Your task to perform on an android device: Open eBay Image 0: 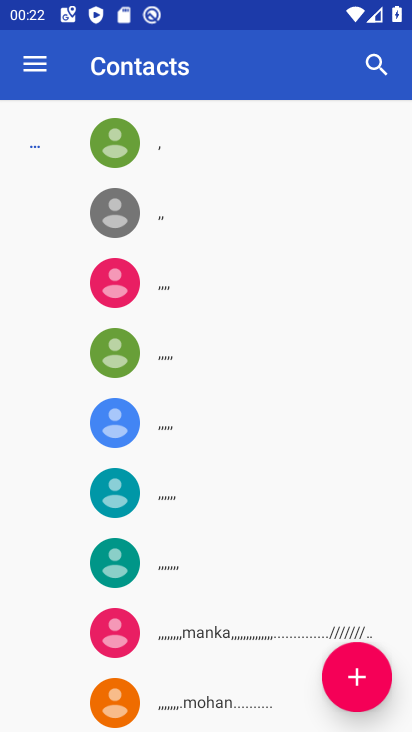
Step 0: press home button
Your task to perform on an android device: Open eBay Image 1: 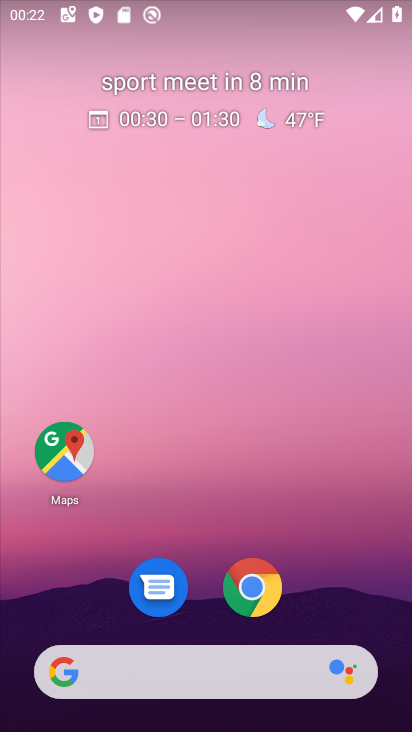
Step 1: click (255, 583)
Your task to perform on an android device: Open eBay Image 2: 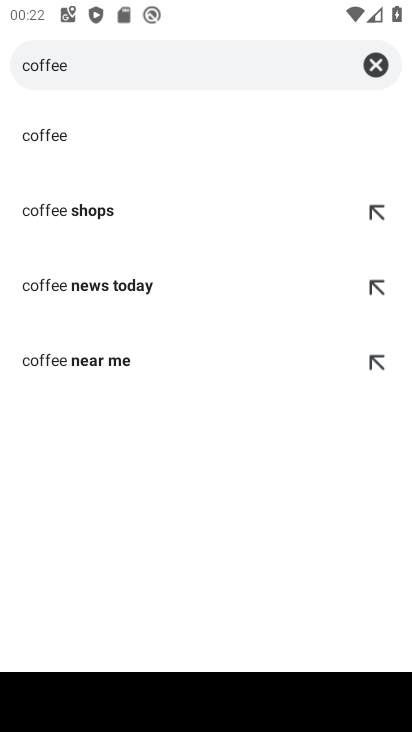
Step 2: click (383, 67)
Your task to perform on an android device: Open eBay Image 3: 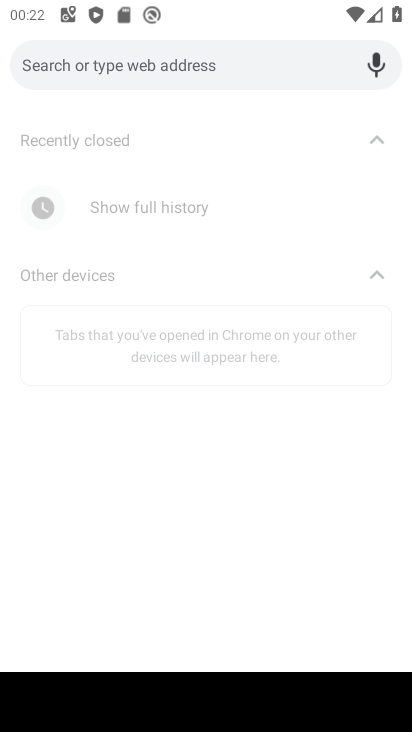
Step 3: press home button
Your task to perform on an android device: Open eBay Image 4: 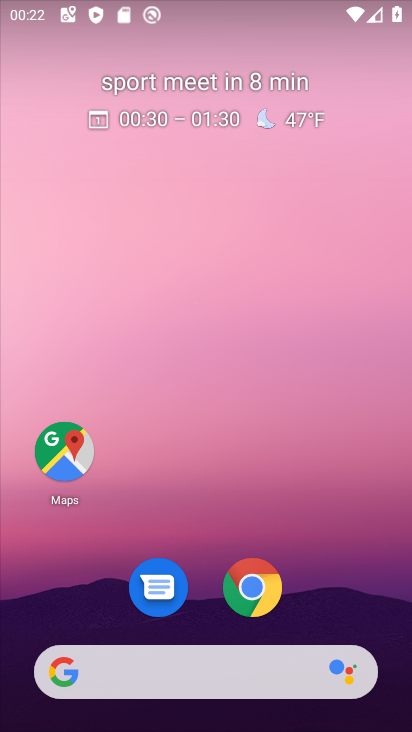
Step 4: click (249, 569)
Your task to perform on an android device: Open eBay Image 5: 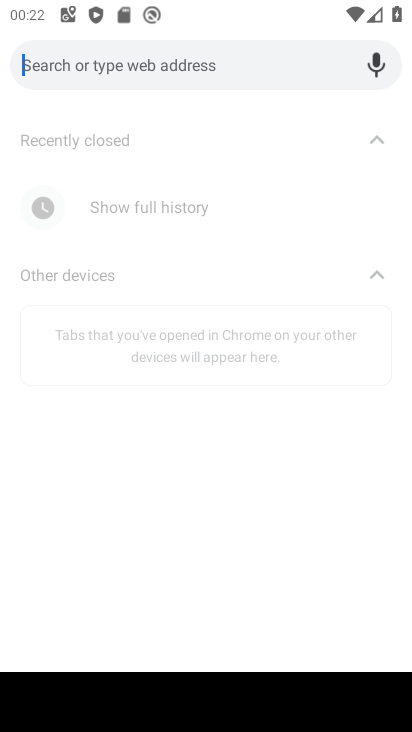
Step 5: type "eBay"
Your task to perform on an android device: Open eBay Image 6: 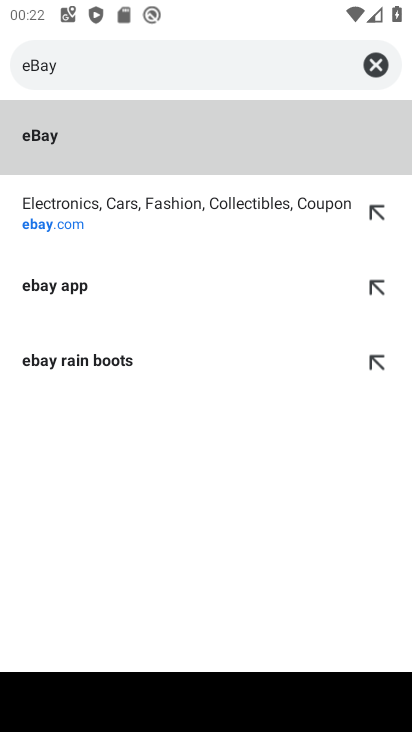
Step 6: click (53, 135)
Your task to perform on an android device: Open eBay Image 7: 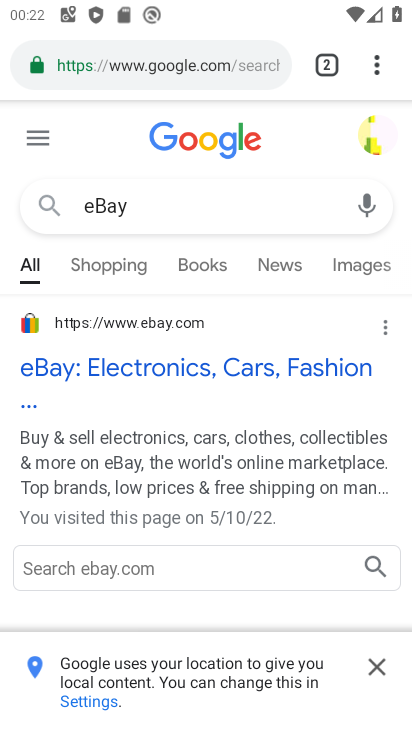
Step 7: task complete